Your task to perform on an android device: turn off priority inbox in the gmail app Image 0: 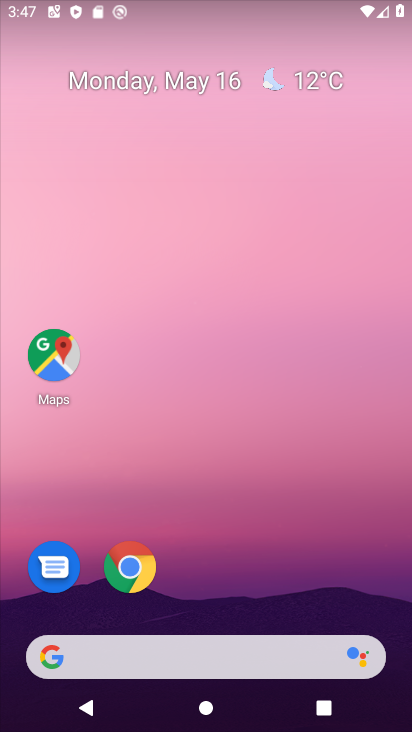
Step 0: drag from (254, 526) to (235, 48)
Your task to perform on an android device: turn off priority inbox in the gmail app Image 1: 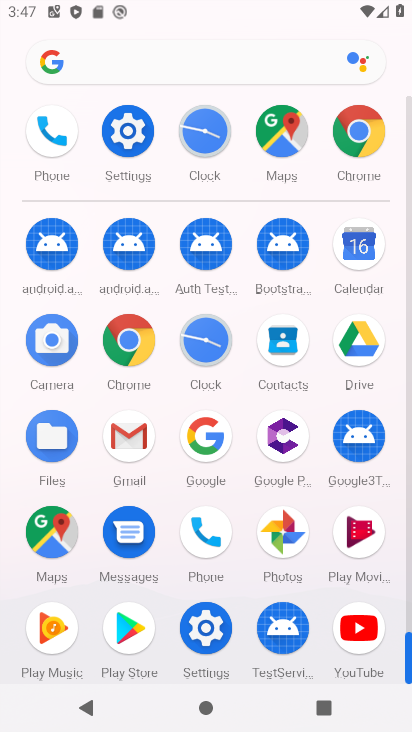
Step 1: drag from (4, 511) to (4, 319)
Your task to perform on an android device: turn off priority inbox in the gmail app Image 2: 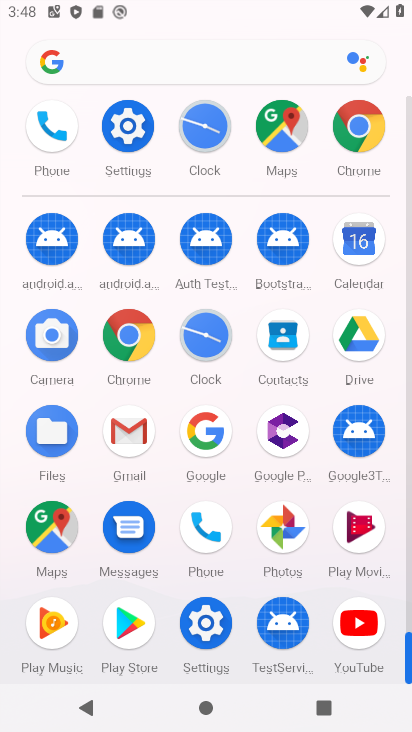
Step 2: click (126, 425)
Your task to perform on an android device: turn off priority inbox in the gmail app Image 3: 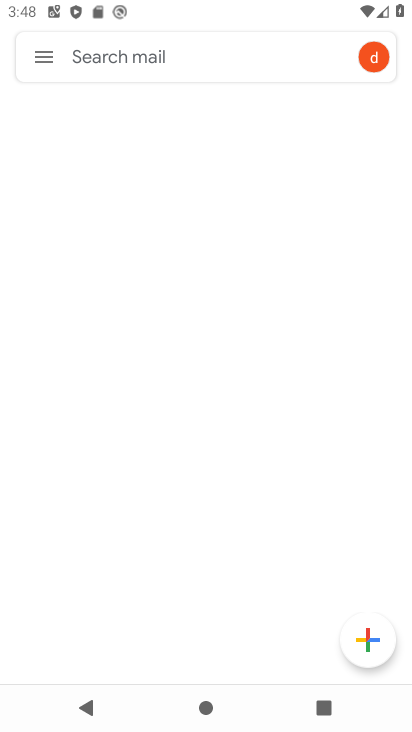
Step 3: click (51, 52)
Your task to perform on an android device: turn off priority inbox in the gmail app Image 4: 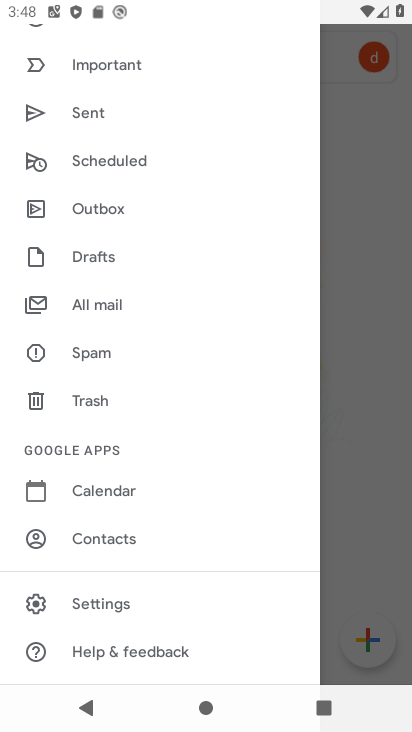
Step 4: click (123, 598)
Your task to perform on an android device: turn off priority inbox in the gmail app Image 5: 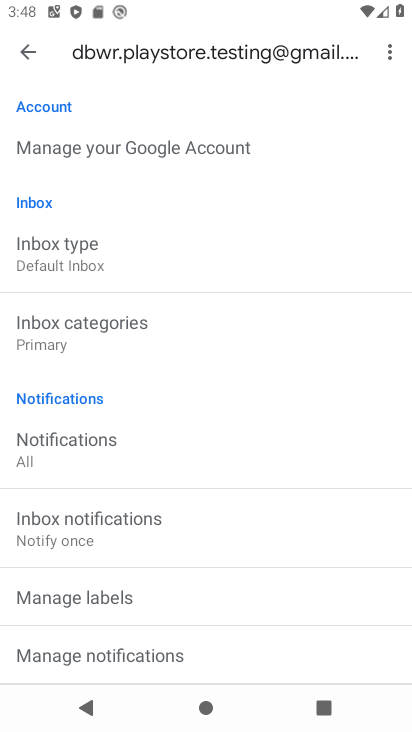
Step 5: drag from (157, 542) to (213, 171)
Your task to perform on an android device: turn off priority inbox in the gmail app Image 6: 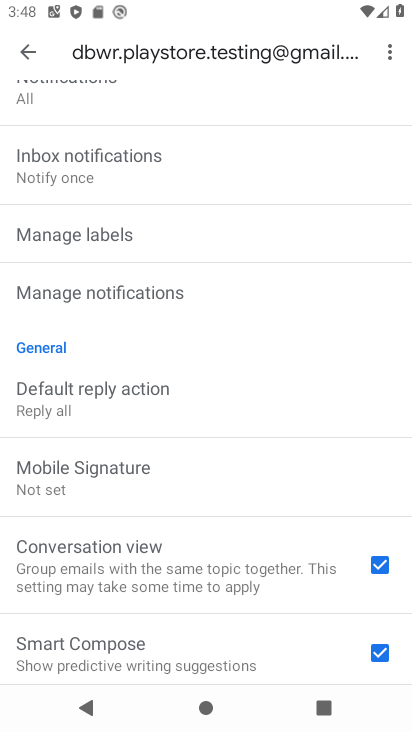
Step 6: drag from (224, 516) to (244, 178)
Your task to perform on an android device: turn off priority inbox in the gmail app Image 7: 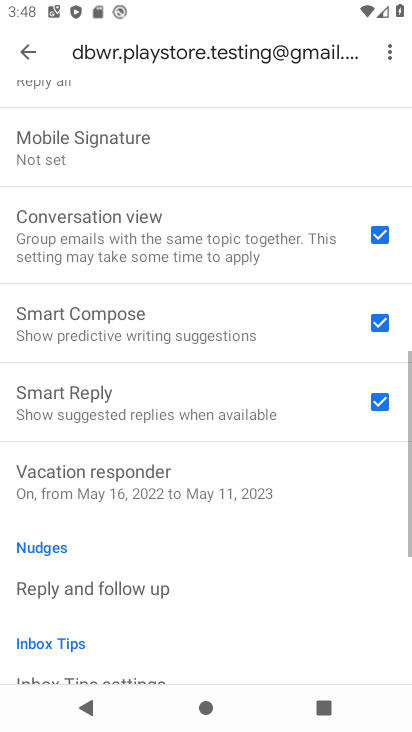
Step 7: drag from (236, 215) to (209, 678)
Your task to perform on an android device: turn off priority inbox in the gmail app Image 8: 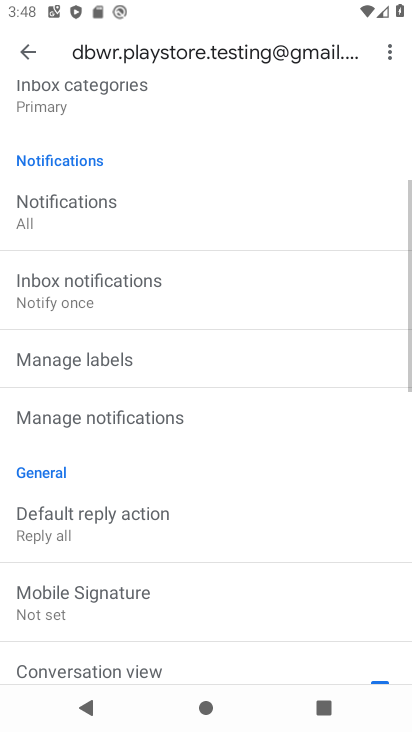
Step 8: drag from (239, 264) to (236, 668)
Your task to perform on an android device: turn off priority inbox in the gmail app Image 9: 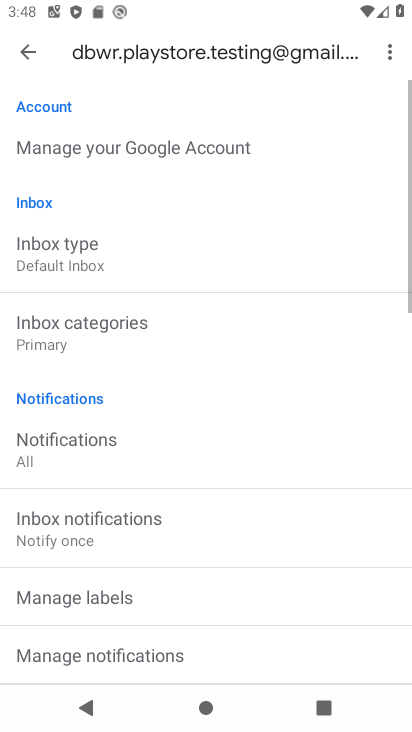
Step 9: click (99, 261)
Your task to perform on an android device: turn off priority inbox in the gmail app Image 10: 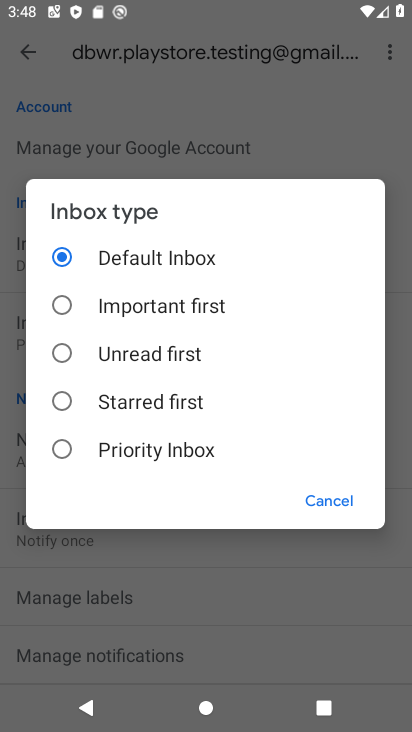
Step 10: click (117, 395)
Your task to perform on an android device: turn off priority inbox in the gmail app Image 11: 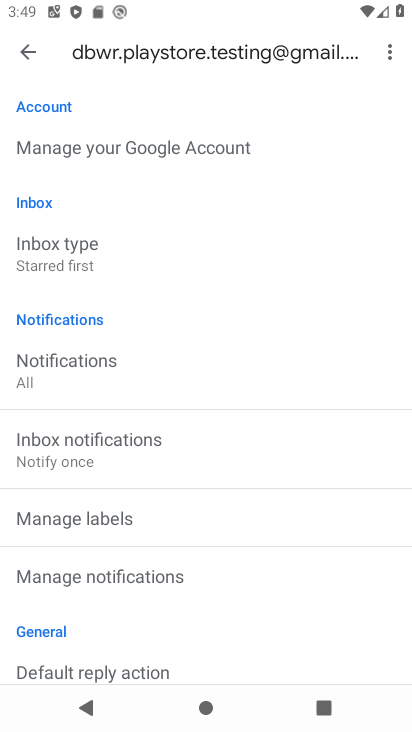
Step 11: click (90, 253)
Your task to perform on an android device: turn off priority inbox in the gmail app Image 12: 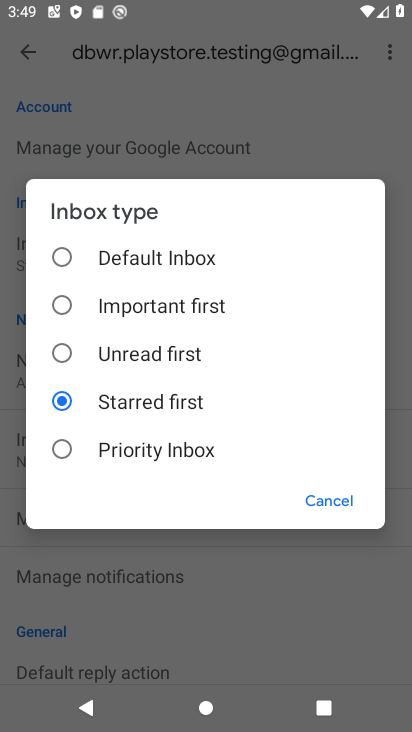
Step 12: click (127, 405)
Your task to perform on an android device: turn off priority inbox in the gmail app Image 13: 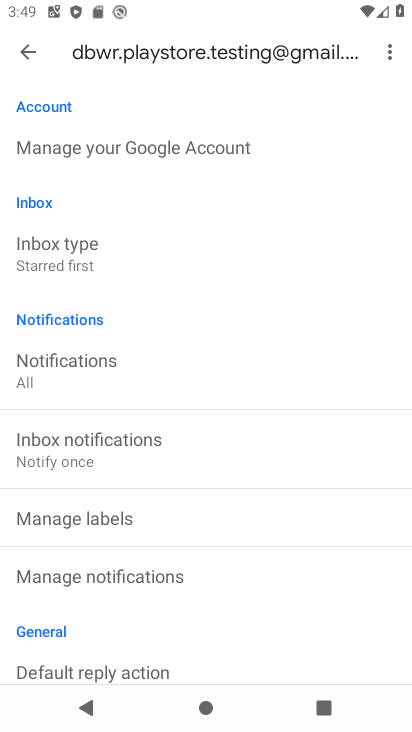
Step 13: task complete